Your task to perform on an android device: change the clock display to digital Image 0: 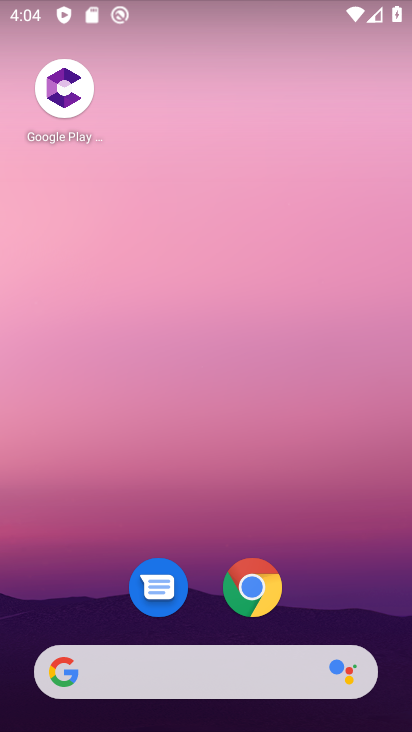
Step 0: drag from (226, 624) to (157, 109)
Your task to perform on an android device: change the clock display to digital Image 1: 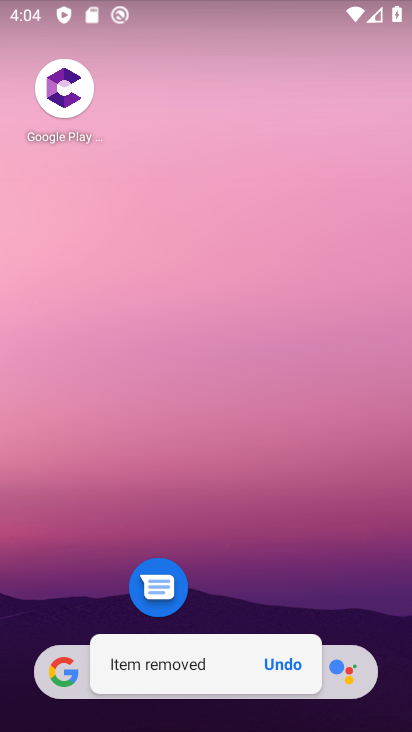
Step 1: drag from (226, 570) to (202, 54)
Your task to perform on an android device: change the clock display to digital Image 2: 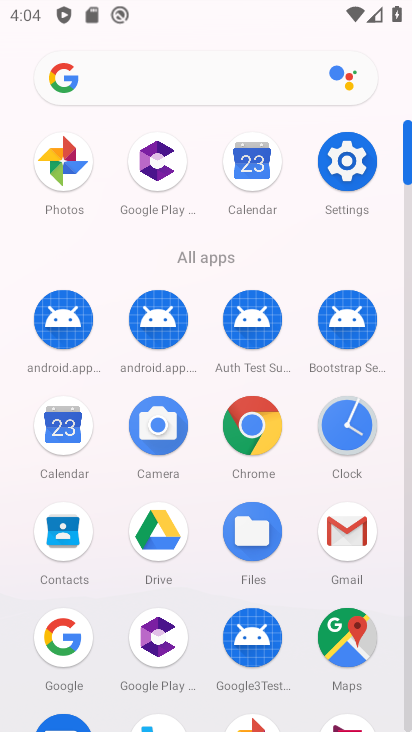
Step 2: click (351, 420)
Your task to perform on an android device: change the clock display to digital Image 3: 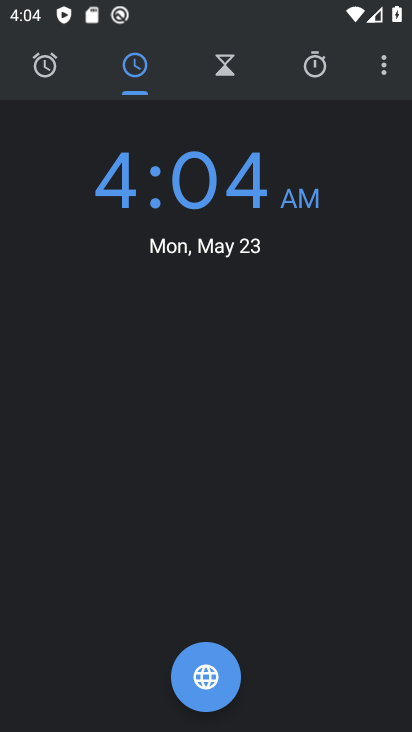
Step 3: click (374, 70)
Your task to perform on an android device: change the clock display to digital Image 4: 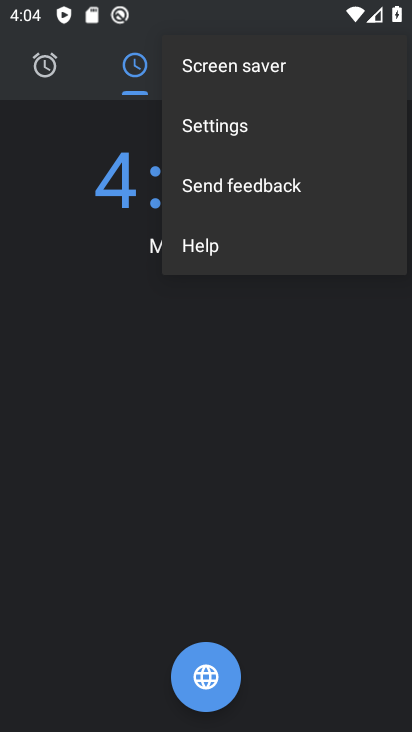
Step 4: click (293, 126)
Your task to perform on an android device: change the clock display to digital Image 5: 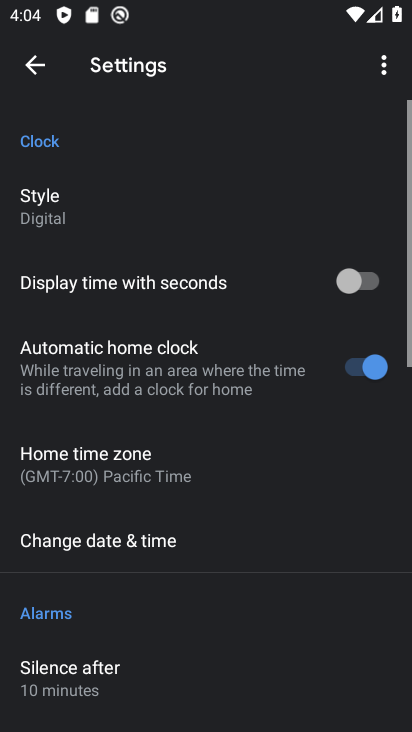
Step 5: click (37, 196)
Your task to perform on an android device: change the clock display to digital Image 6: 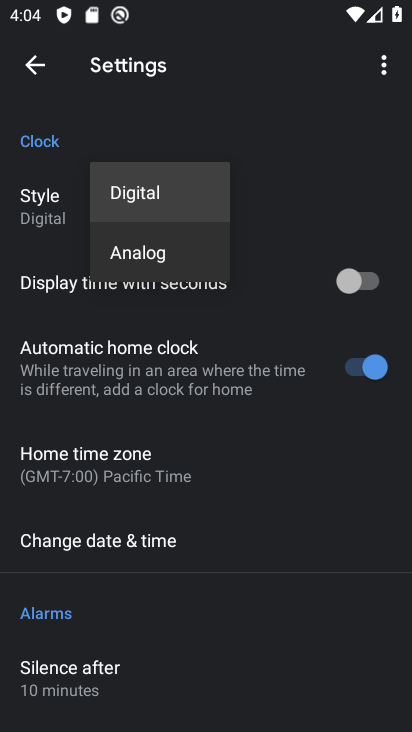
Step 6: task complete